Your task to perform on an android device: see creations saved in the google photos Image 0: 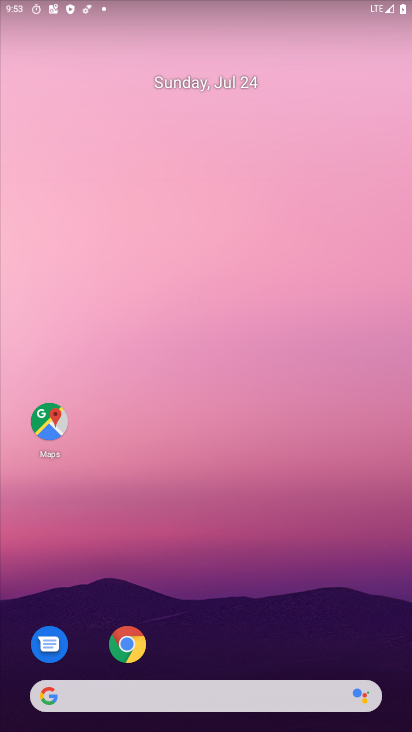
Step 0: drag from (209, 677) to (240, 300)
Your task to perform on an android device: see creations saved in the google photos Image 1: 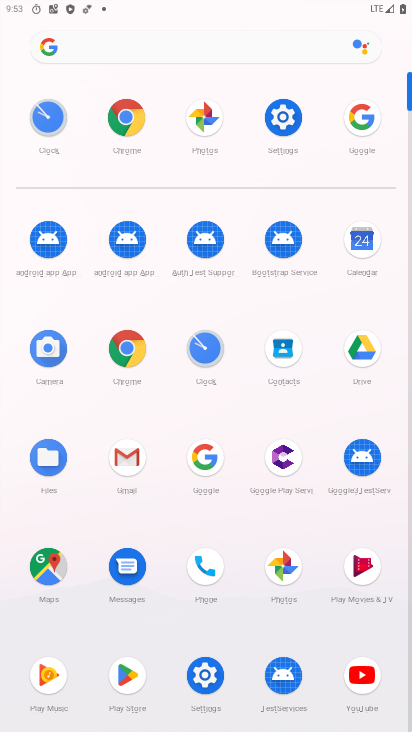
Step 1: click (200, 122)
Your task to perform on an android device: see creations saved in the google photos Image 2: 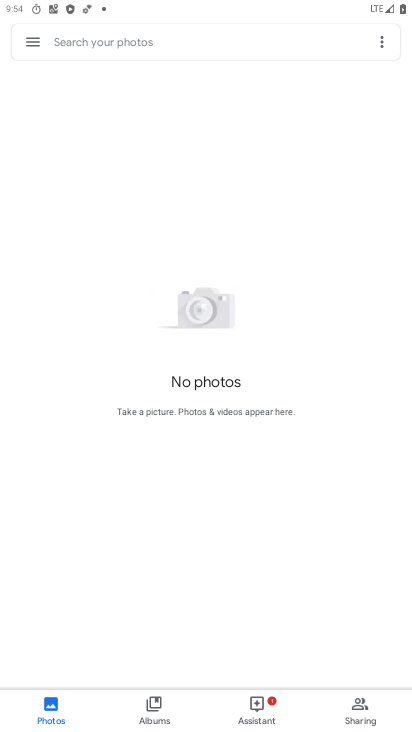
Step 2: click (162, 699)
Your task to perform on an android device: see creations saved in the google photos Image 3: 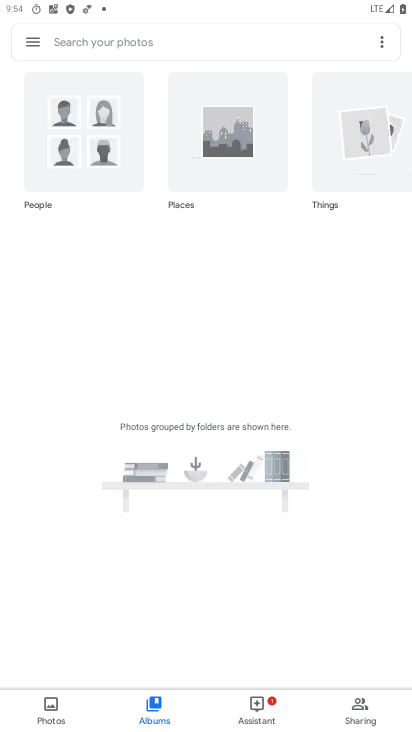
Step 3: click (94, 154)
Your task to perform on an android device: see creations saved in the google photos Image 4: 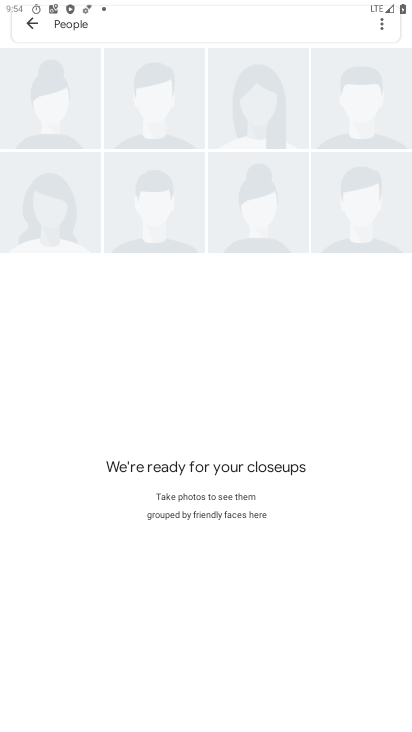
Step 4: task complete